Your task to perform on an android device: Open maps Image 0: 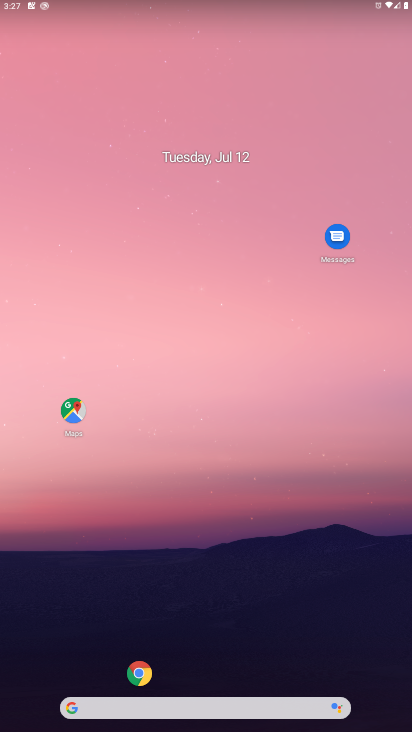
Step 0: drag from (55, 673) to (345, 91)
Your task to perform on an android device: Open maps Image 1: 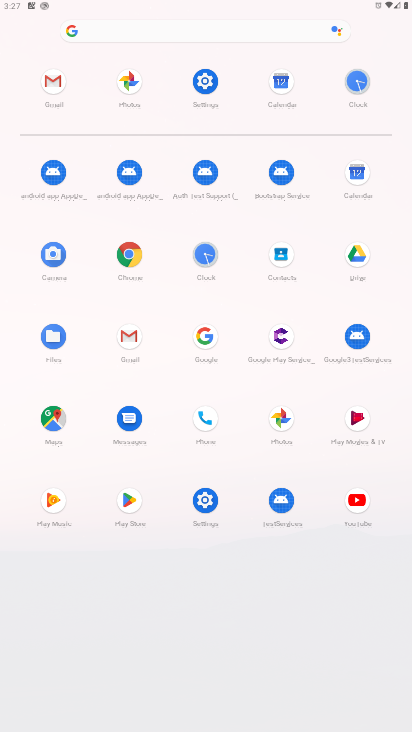
Step 1: click (206, 498)
Your task to perform on an android device: Open maps Image 2: 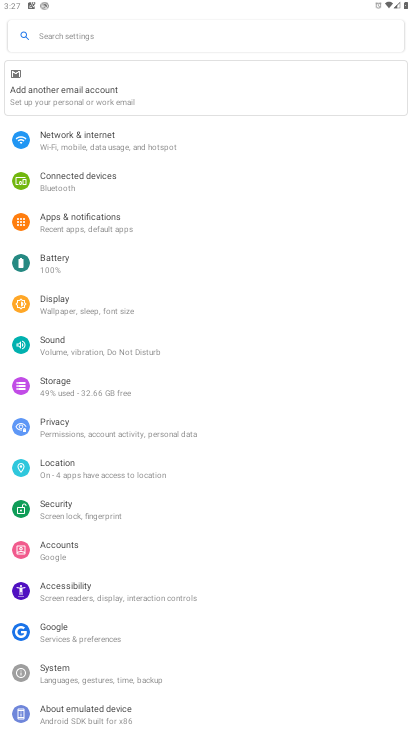
Step 2: press home button
Your task to perform on an android device: Open maps Image 3: 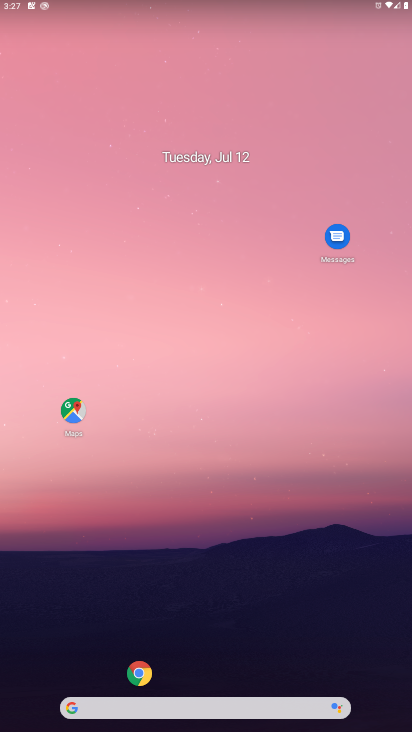
Step 3: click (47, 402)
Your task to perform on an android device: Open maps Image 4: 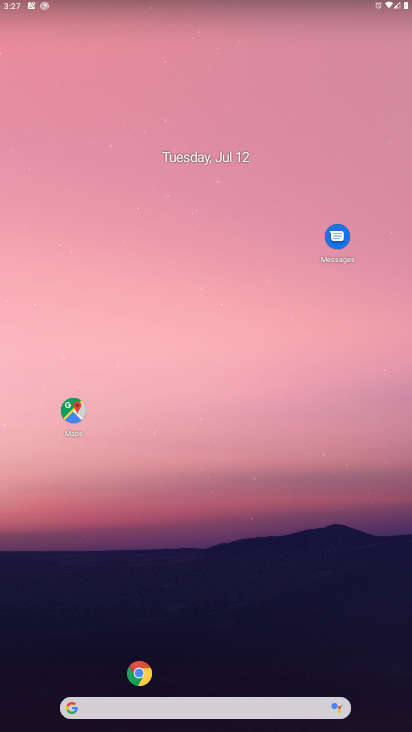
Step 4: click (67, 409)
Your task to perform on an android device: Open maps Image 5: 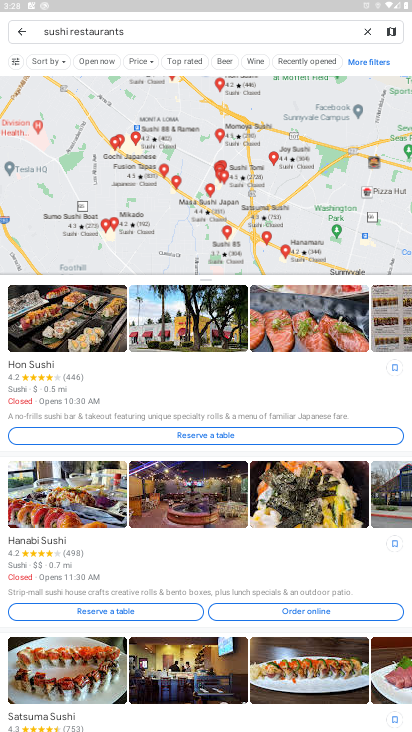
Step 5: click (21, 28)
Your task to perform on an android device: Open maps Image 6: 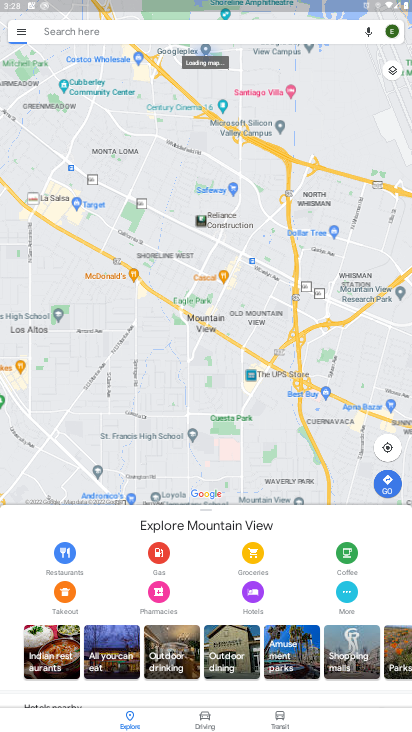
Step 6: task complete